Your task to perform on an android device: check data usage Image 0: 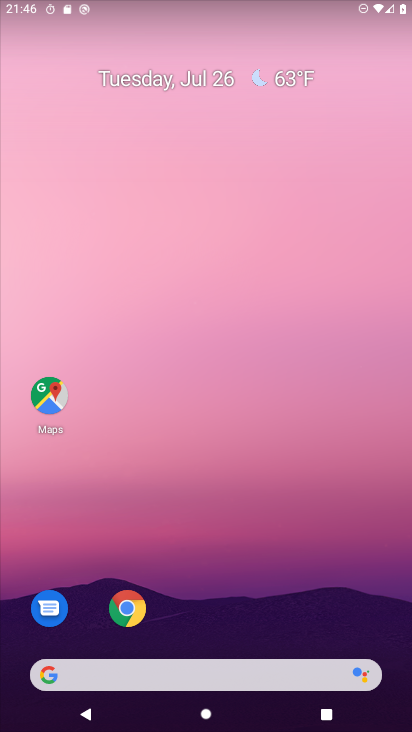
Step 0: drag from (33, 681) to (301, 92)
Your task to perform on an android device: check data usage Image 1: 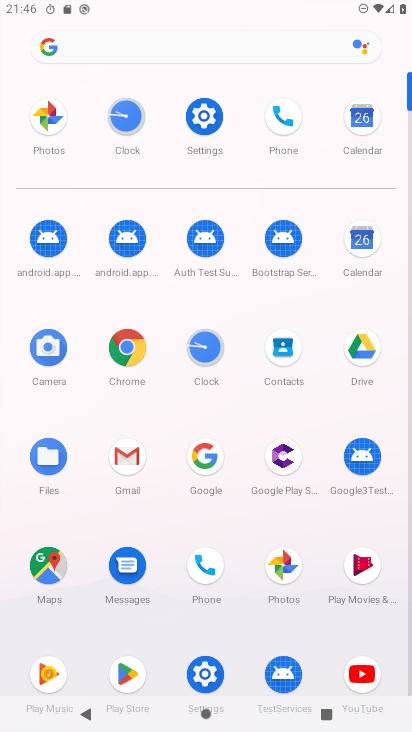
Step 1: click (197, 678)
Your task to perform on an android device: check data usage Image 2: 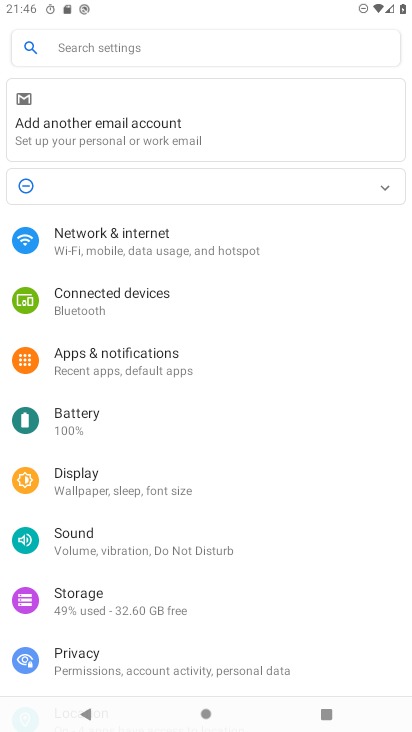
Step 2: click (106, 241)
Your task to perform on an android device: check data usage Image 3: 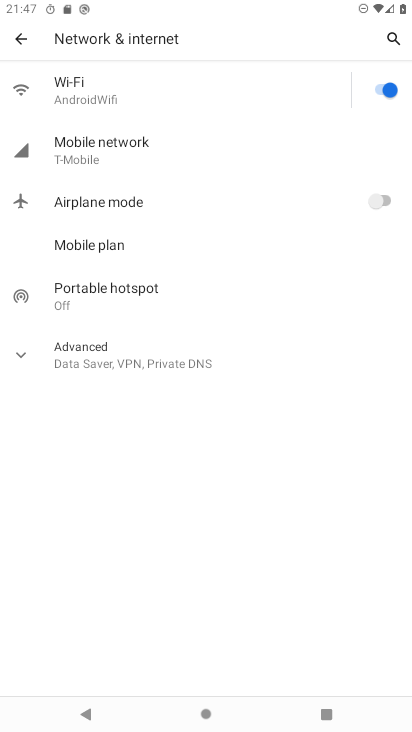
Step 3: click (116, 138)
Your task to perform on an android device: check data usage Image 4: 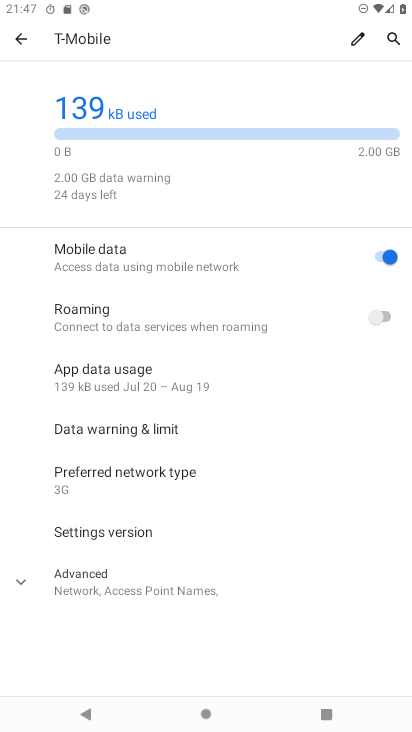
Step 4: task complete